Your task to perform on an android device: Open privacy settings Image 0: 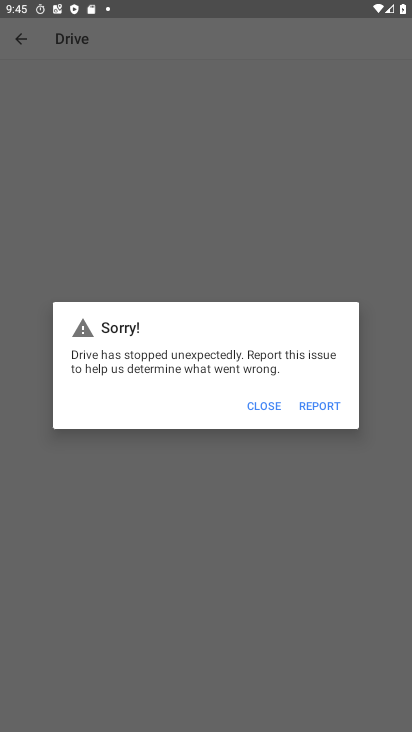
Step 0: press home button
Your task to perform on an android device: Open privacy settings Image 1: 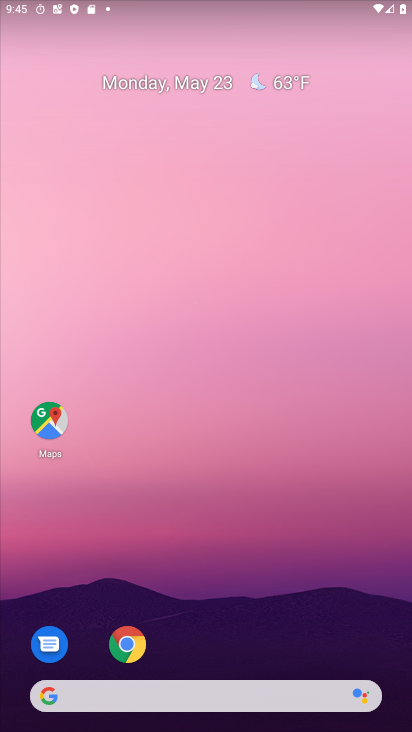
Step 1: drag from (214, 647) to (208, 159)
Your task to perform on an android device: Open privacy settings Image 2: 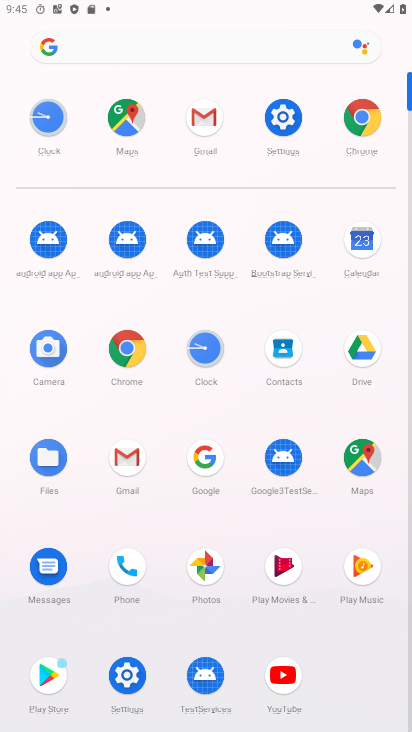
Step 2: click (280, 110)
Your task to perform on an android device: Open privacy settings Image 3: 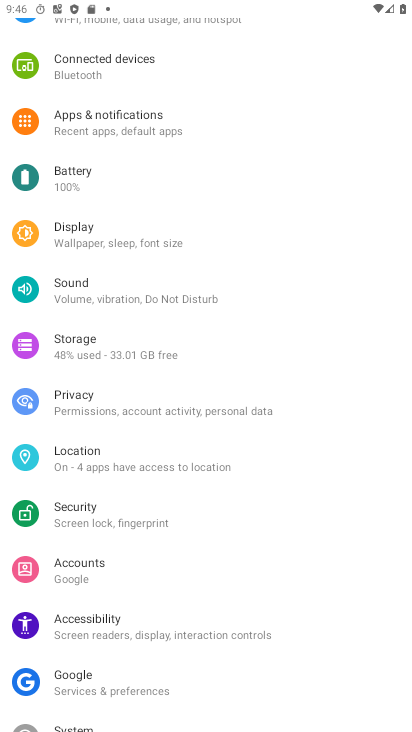
Step 3: click (111, 403)
Your task to perform on an android device: Open privacy settings Image 4: 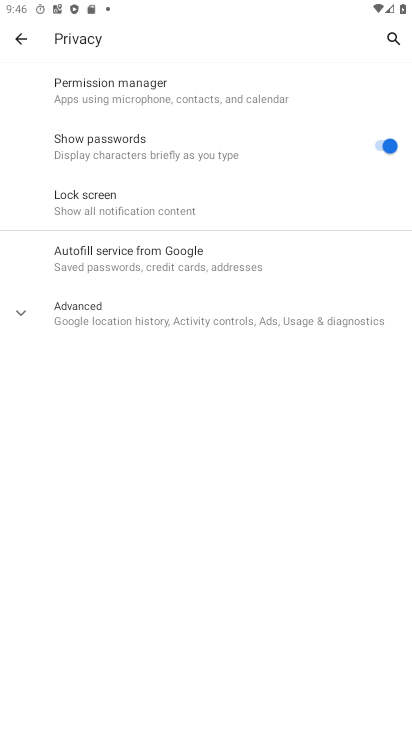
Step 4: click (28, 309)
Your task to perform on an android device: Open privacy settings Image 5: 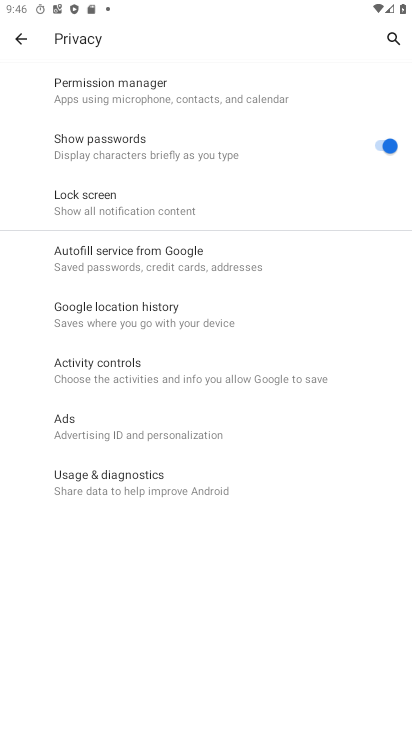
Step 5: task complete